Your task to perform on an android device: Open the web browser Image 0: 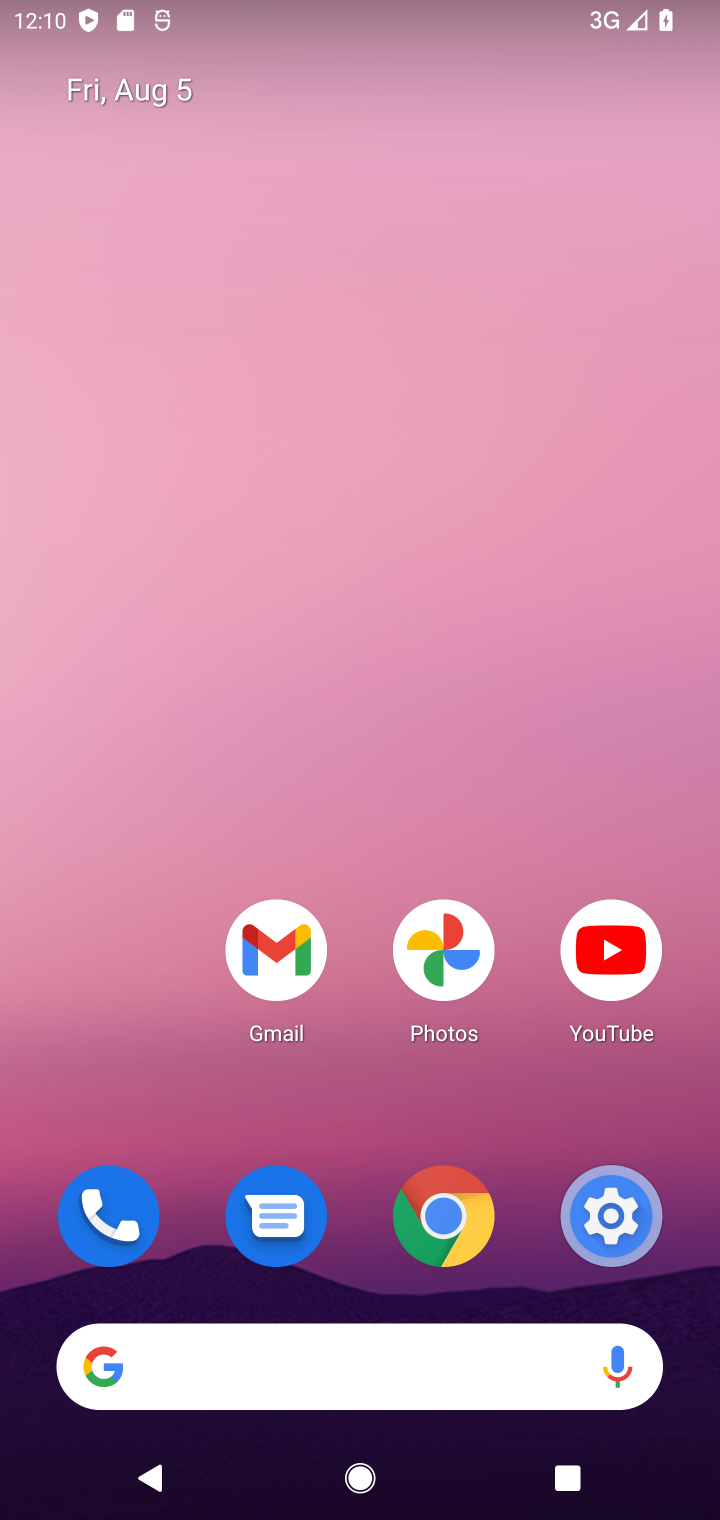
Step 0: drag from (447, 1371) to (465, 483)
Your task to perform on an android device: Open the web browser Image 1: 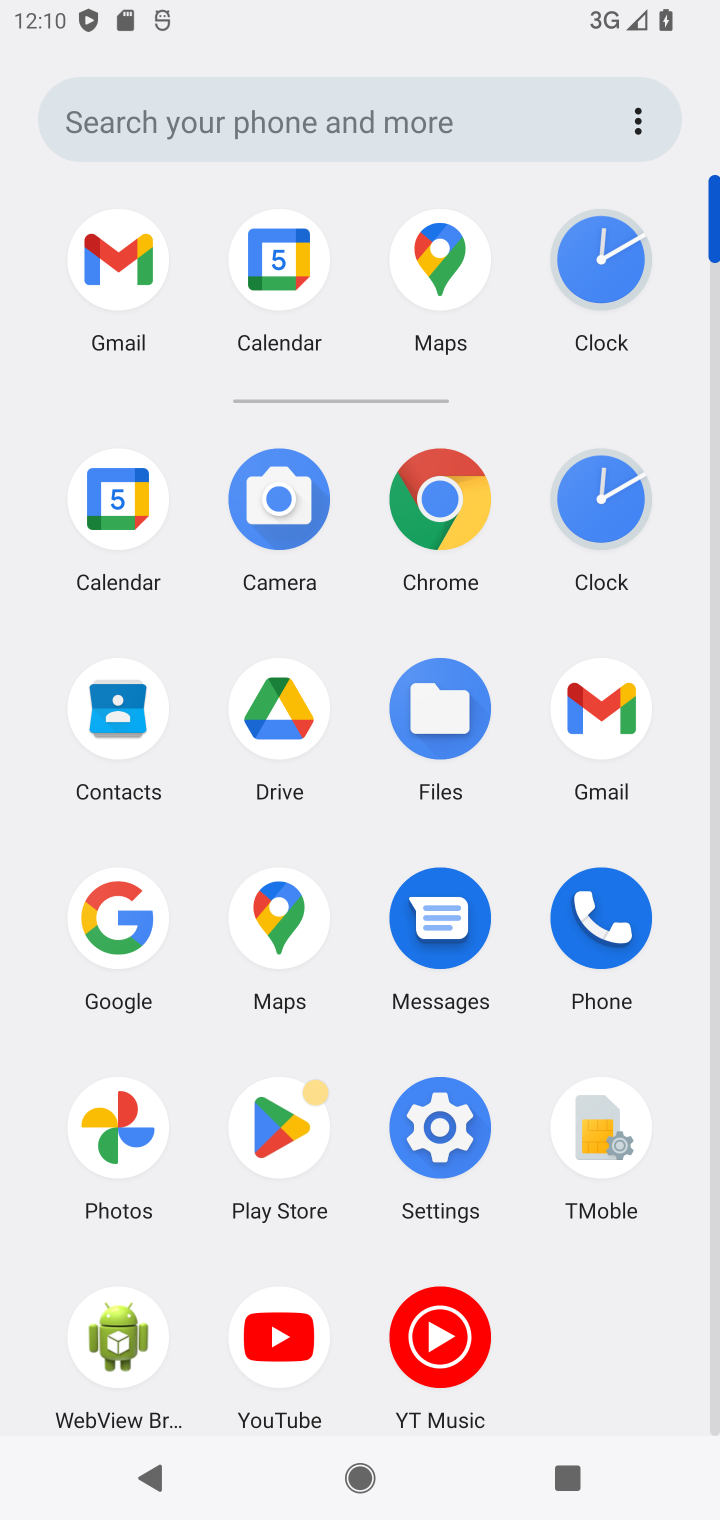
Step 1: click (458, 478)
Your task to perform on an android device: Open the web browser Image 2: 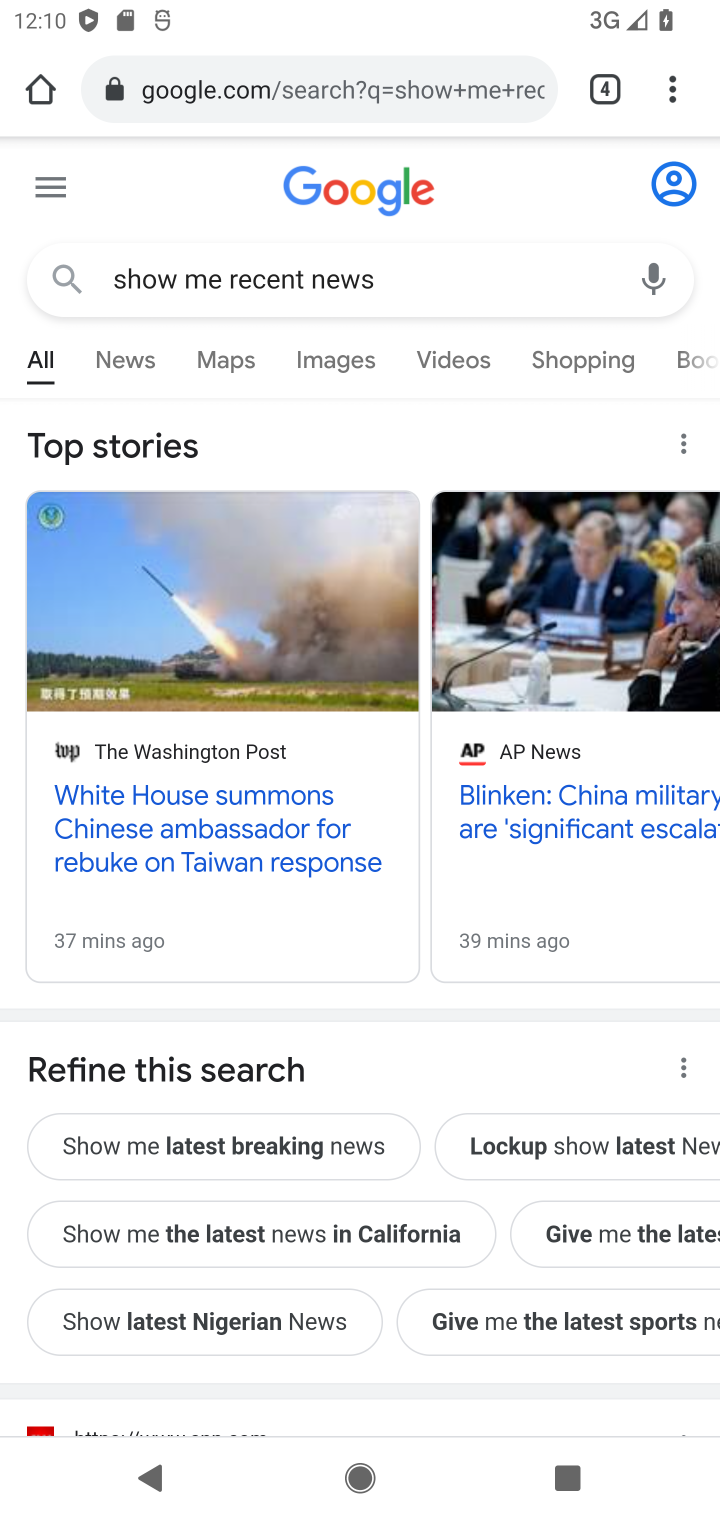
Step 2: click (662, 78)
Your task to perform on an android device: Open the web browser Image 3: 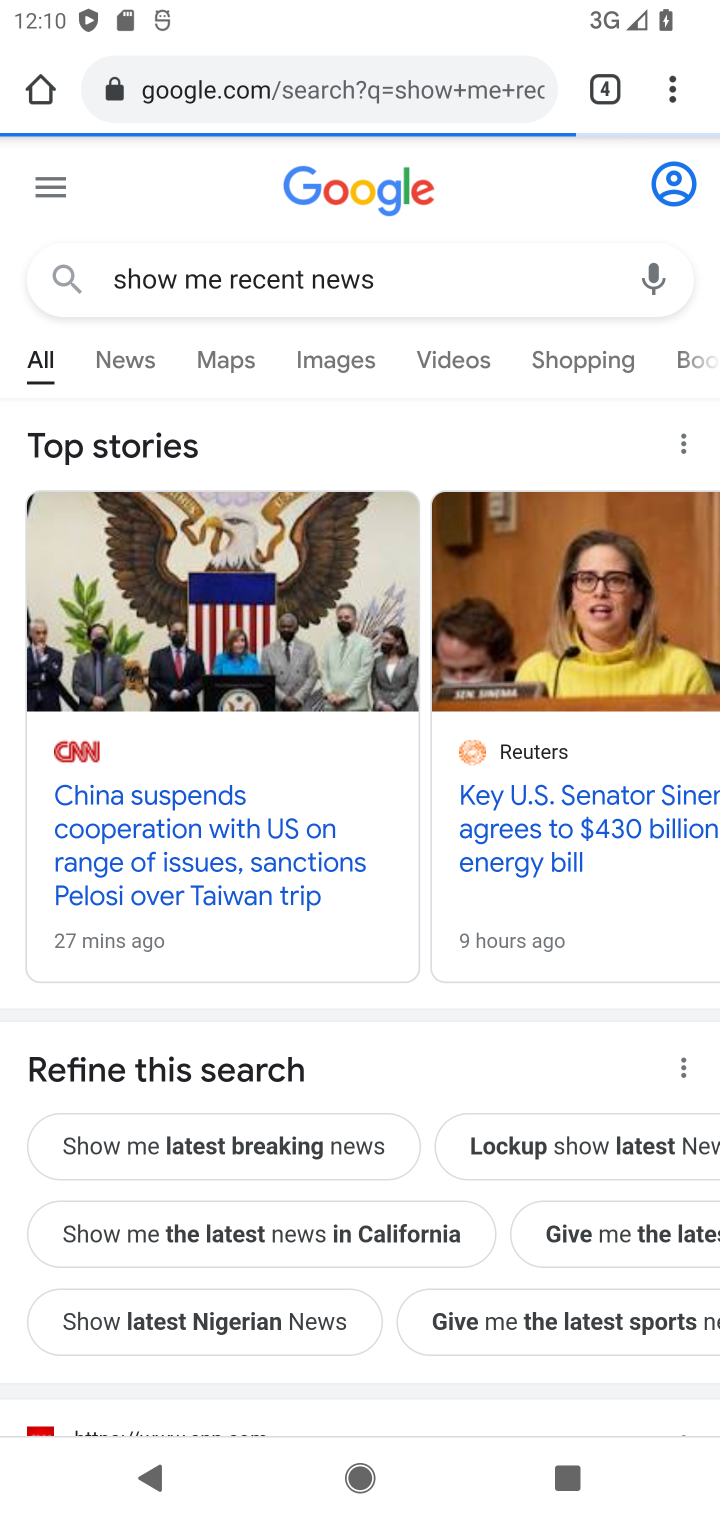
Step 3: click (678, 88)
Your task to perform on an android device: Open the web browser Image 4: 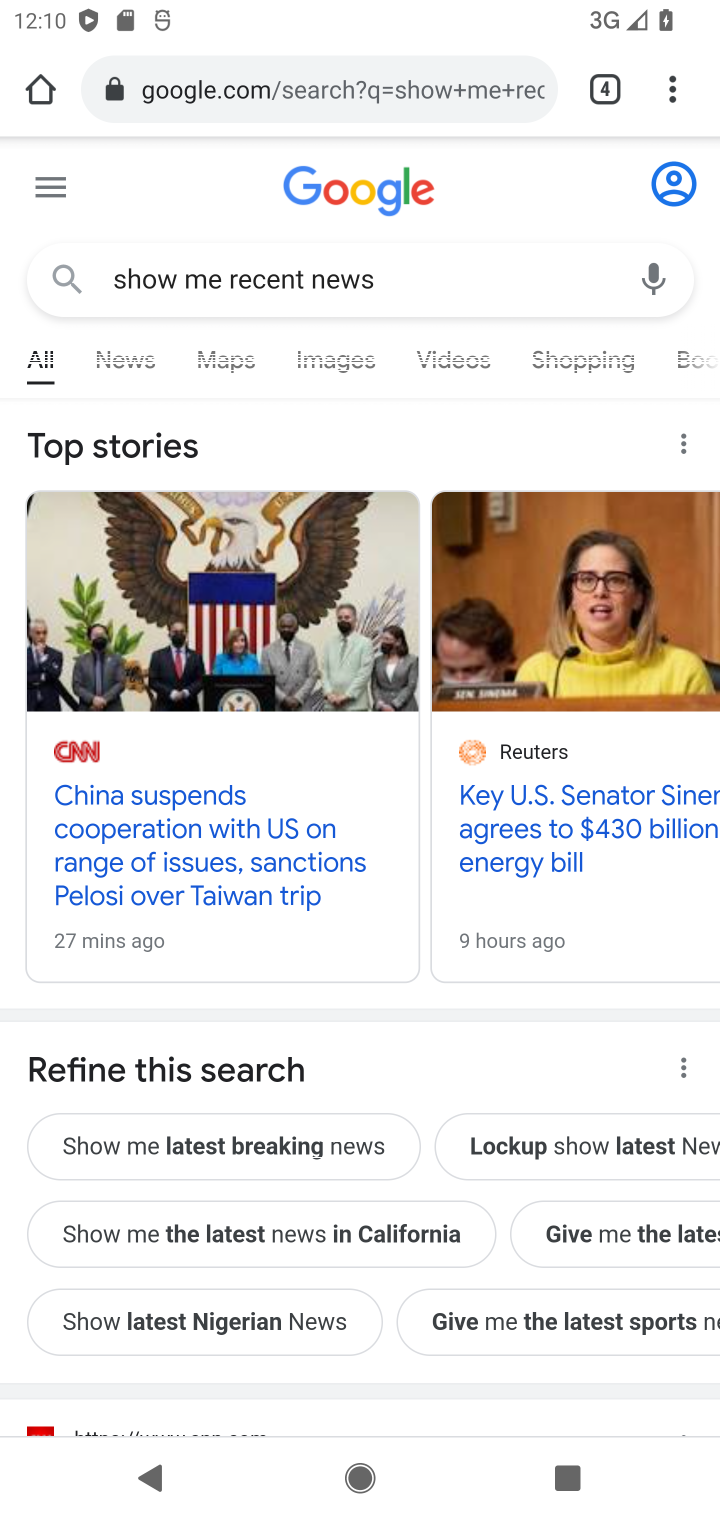
Step 4: click (662, 83)
Your task to perform on an android device: Open the web browser Image 5: 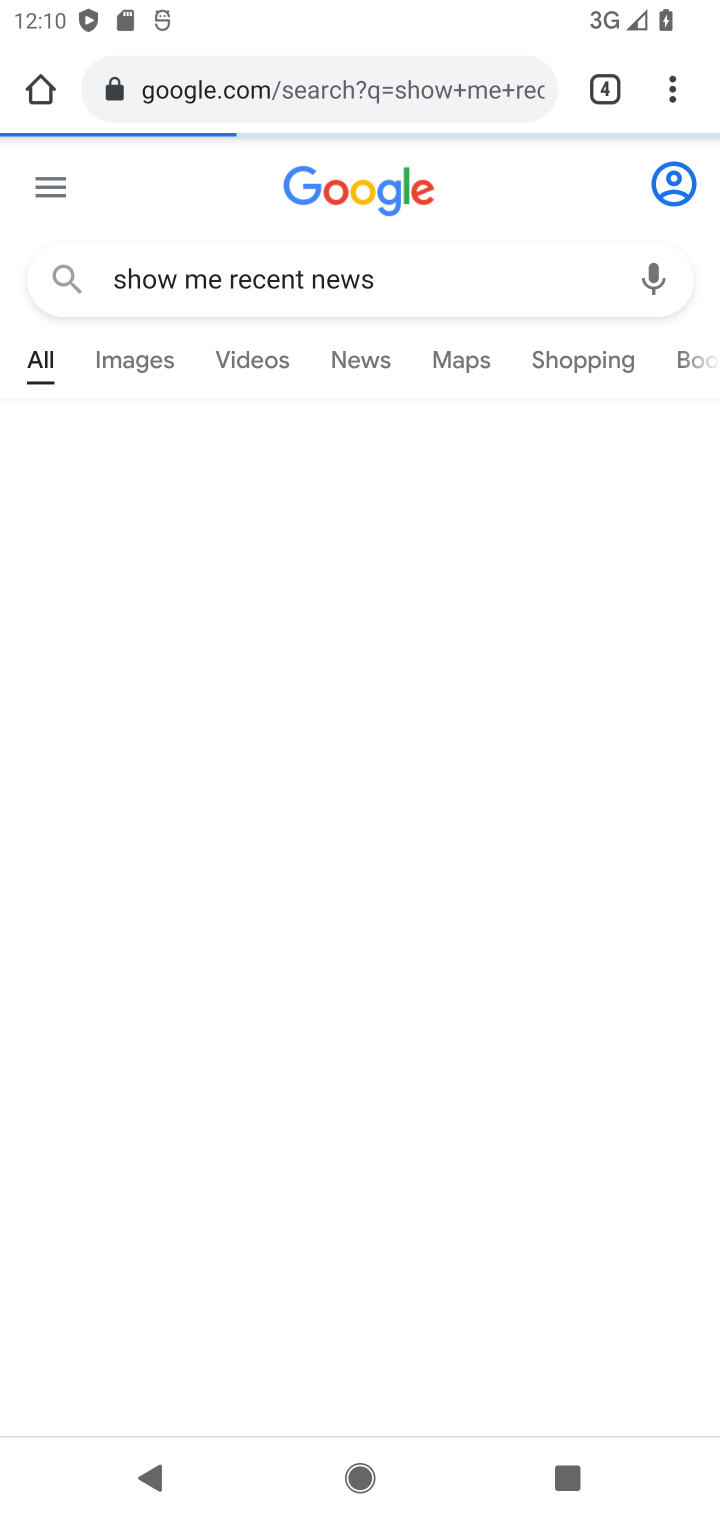
Step 5: drag from (662, 83) to (648, 233)
Your task to perform on an android device: Open the web browser Image 6: 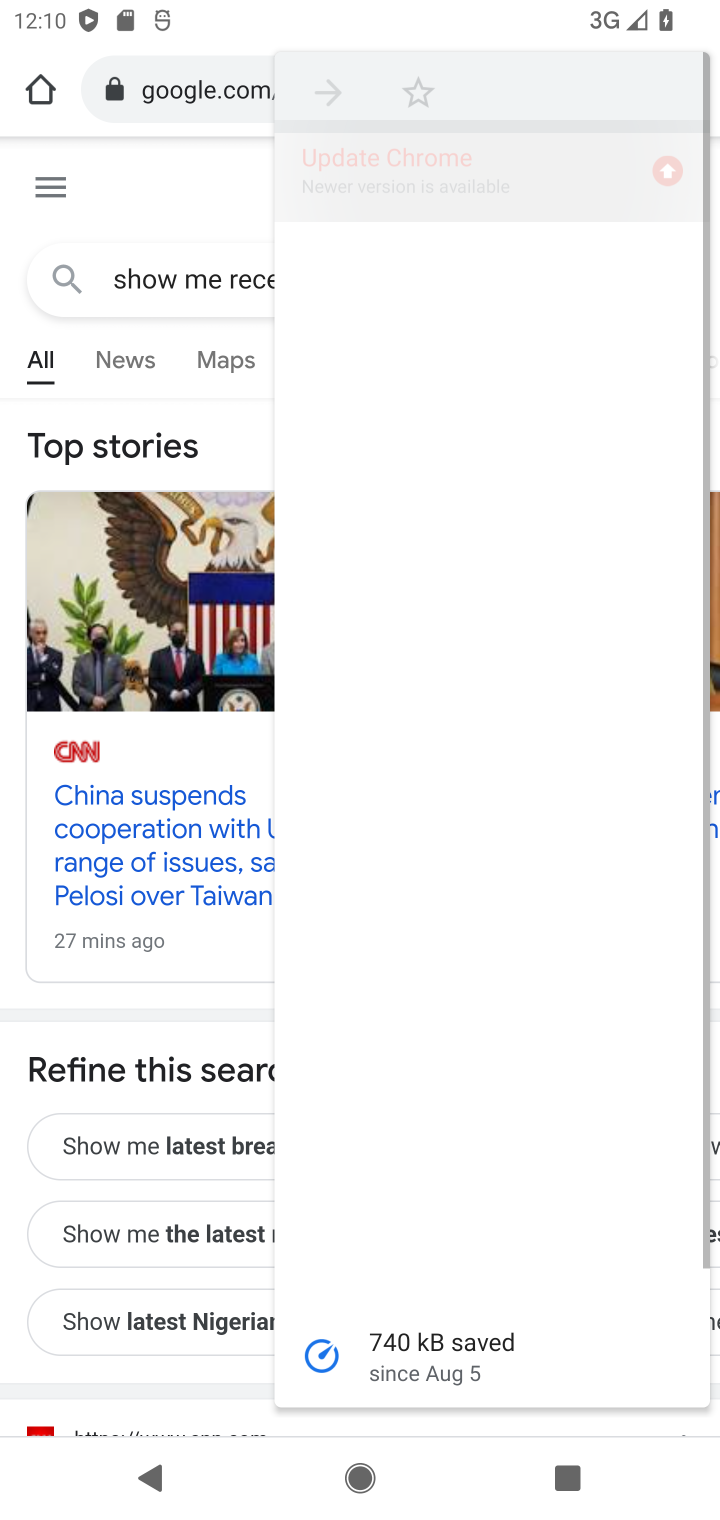
Step 6: click (648, 233)
Your task to perform on an android device: Open the web browser Image 7: 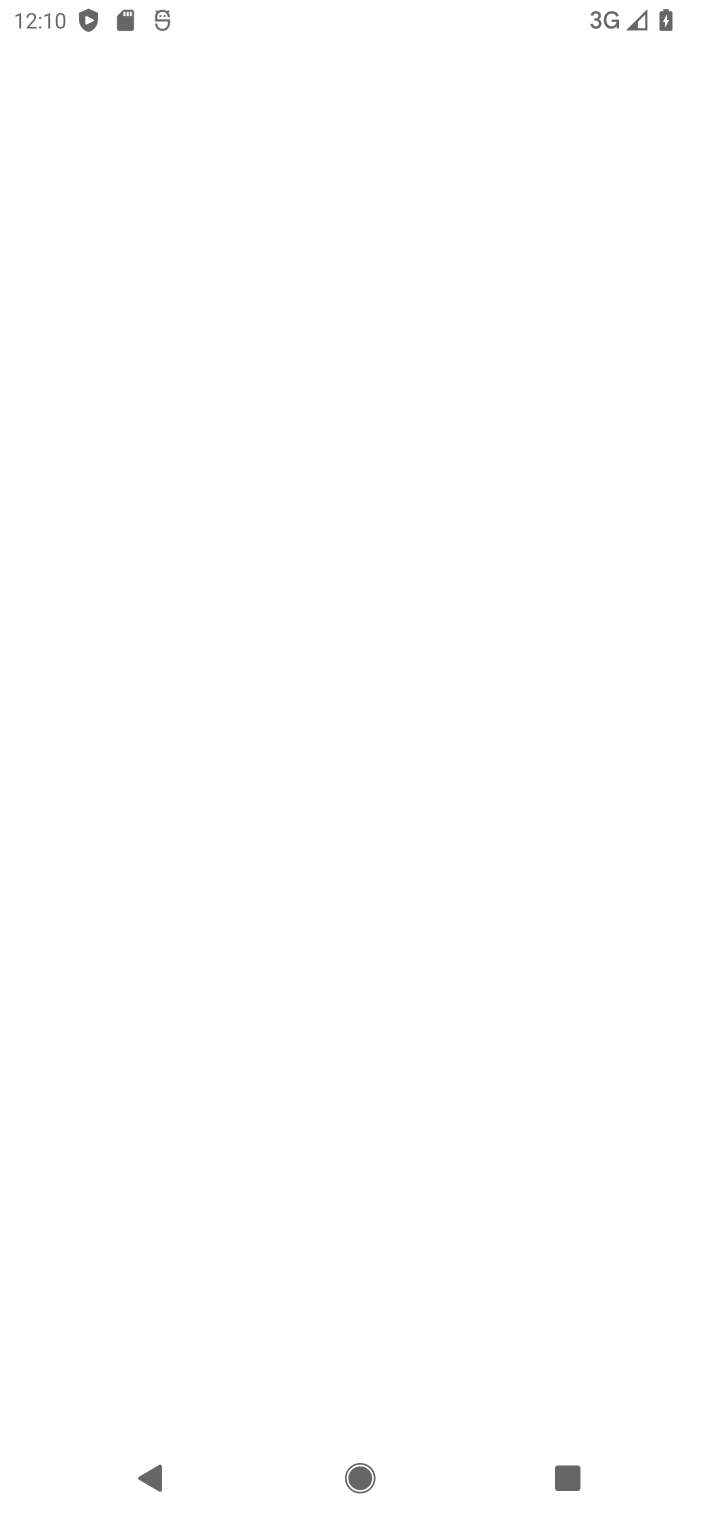
Step 7: task complete